Your task to perform on an android device: change keyboard looks Image 0: 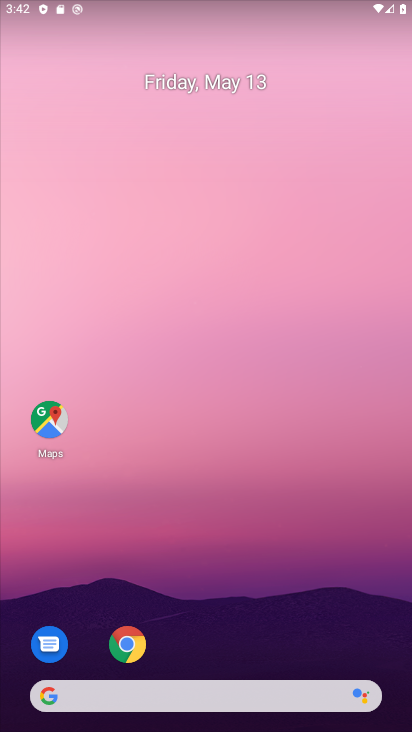
Step 0: drag from (213, 566) to (149, 145)
Your task to perform on an android device: change keyboard looks Image 1: 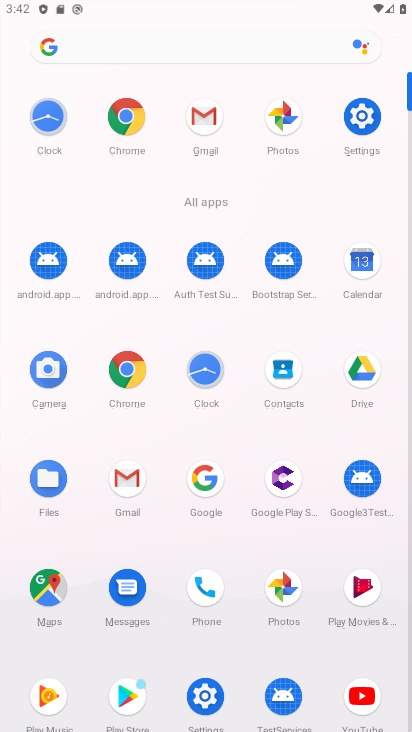
Step 1: drag from (235, 655) to (204, 496)
Your task to perform on an android device: change keyboard looks Image 2: 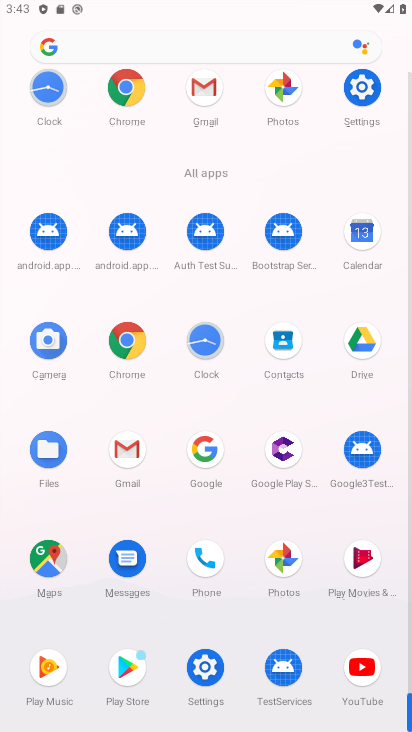
Step 2: click (203, 686)
Your task to perform on an android device: change keyboard looks Image 3: 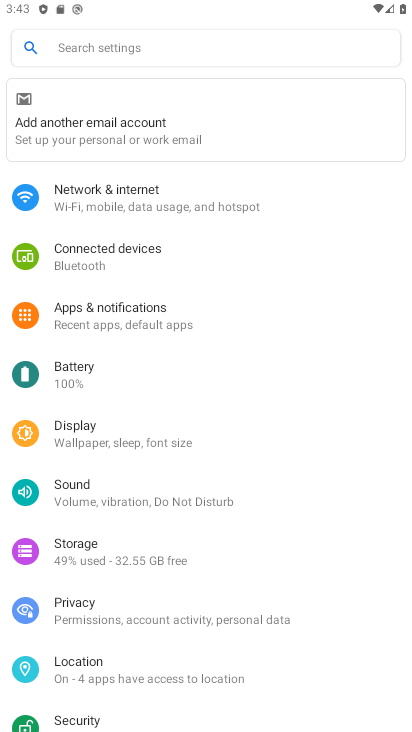
Step 3: drag from (242, 652) to (96, 121)
Your task to perform on an android device: change keyboard looks Image 4: 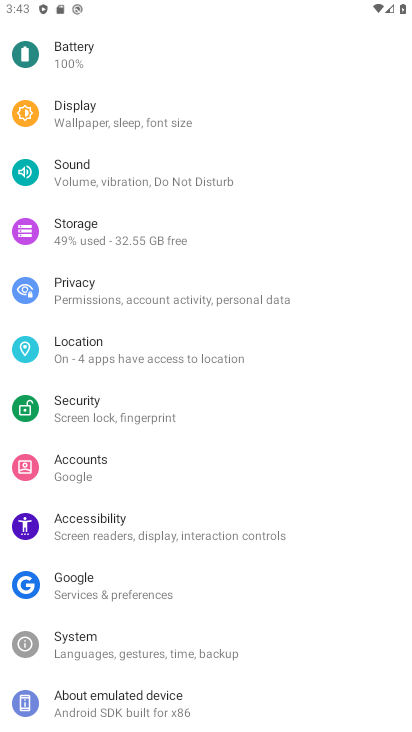
Step 4: drag from (132, 666) to (92, 382)
Your task to perform on an android device: change keyboard looks Image 5: 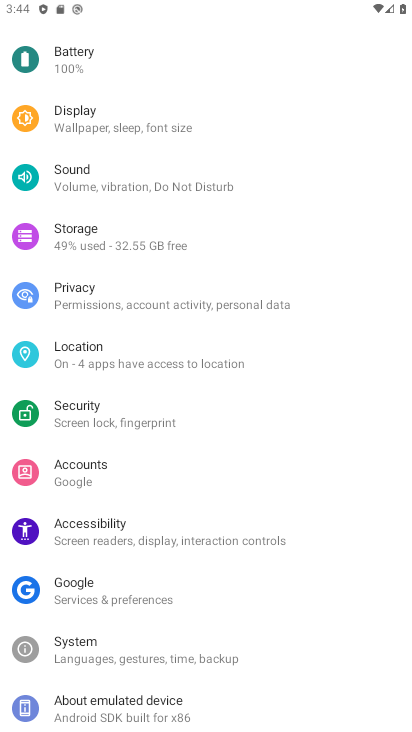
Step 5: click (105, 643)
Your task to perform on an android device: change keyboard looks Image 6: 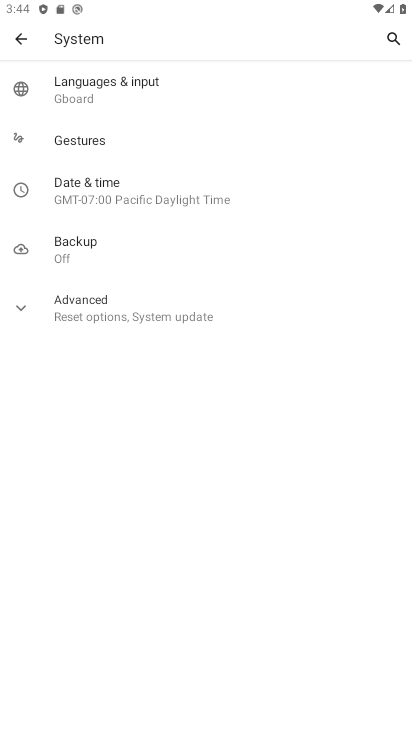
Step 6: click (79, 87)
Your task to perform on an android device: change keyboard looks Image 7: 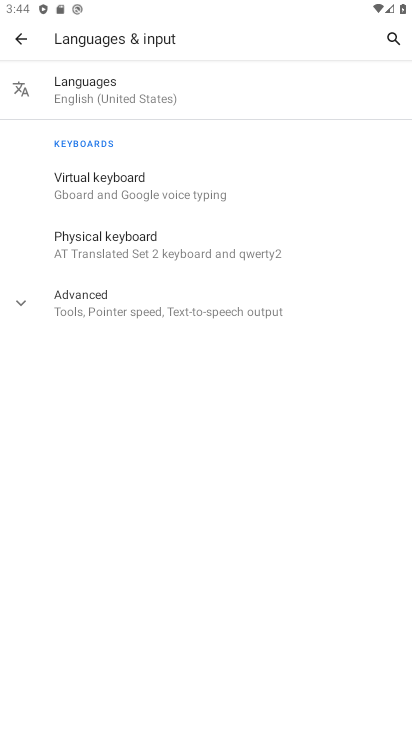
Step 7: click (144, 185)
Your task to perform on an android device: change keyboard looks Image 8: 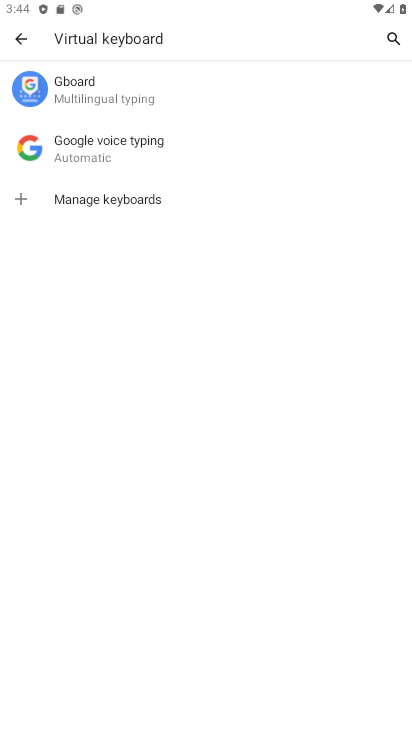
Step 8: click (151, 97)
Your task to perform on an android device: change keyboard looks Image 9: 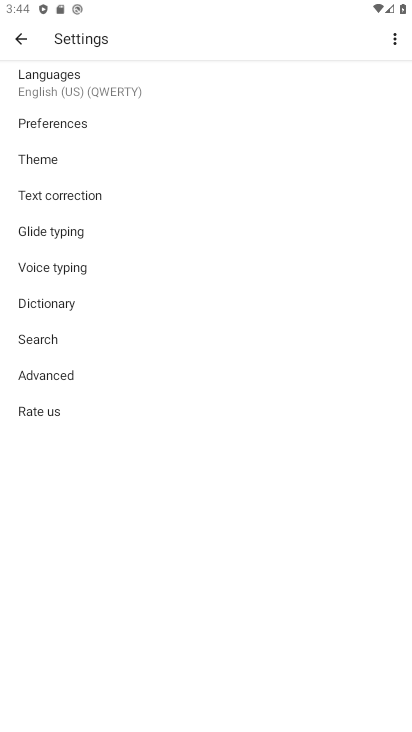
Step 9: click (79, 165)
Your task to perform on an android device: change keyboard looks Image 10: 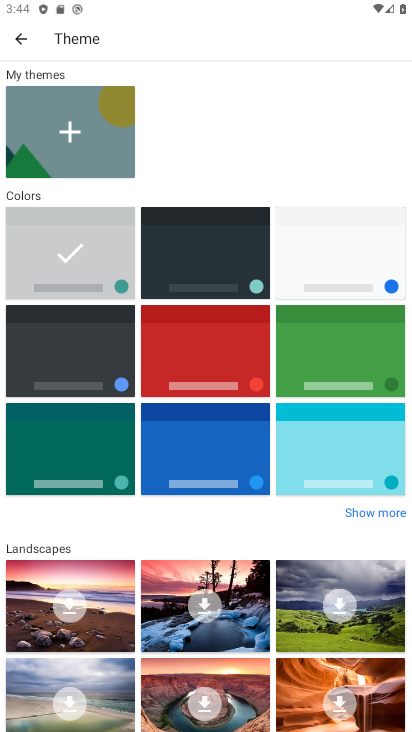
Step 10: click (250, 286)
Your task to perform on an android device: change keyboard looks Image 11: 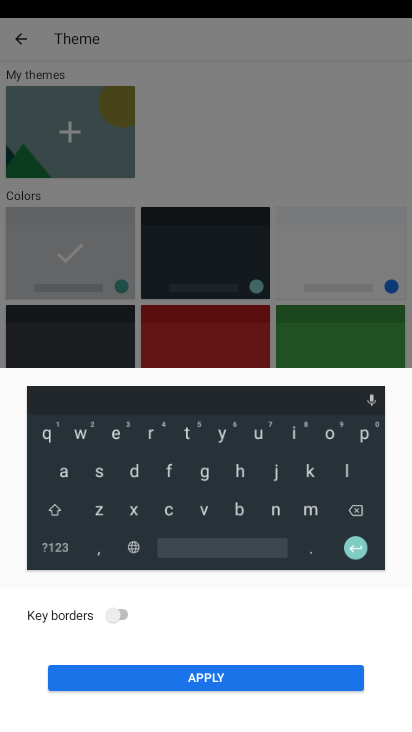
Step 11: task complete